Your task to perform on an android device: Clear the cart on ebay. Image 0: 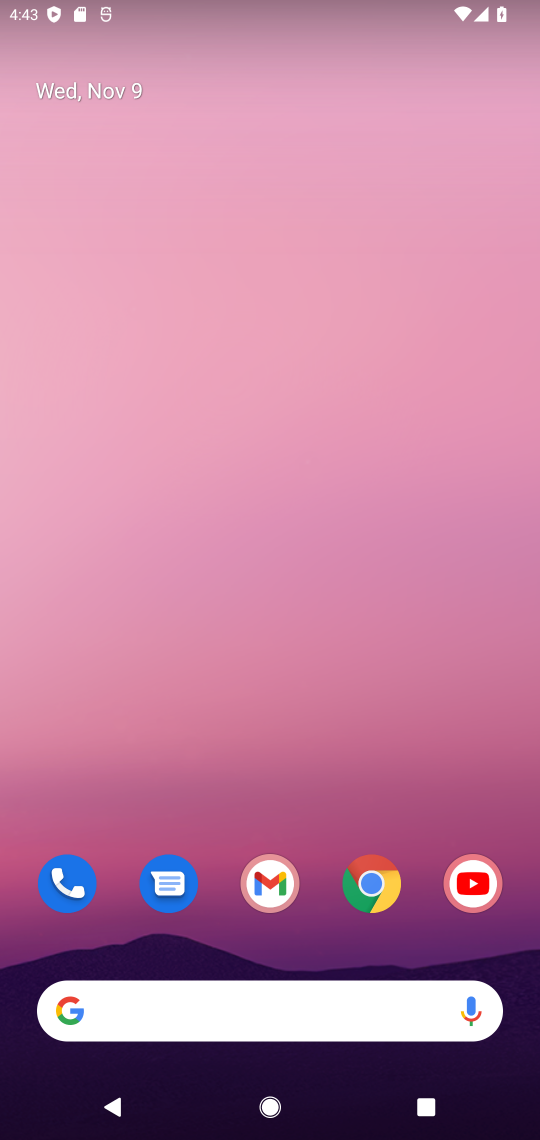
Step 0: click (374, 890)
Your task to perform on an android device: Clear the cart on ebay. Image 1: 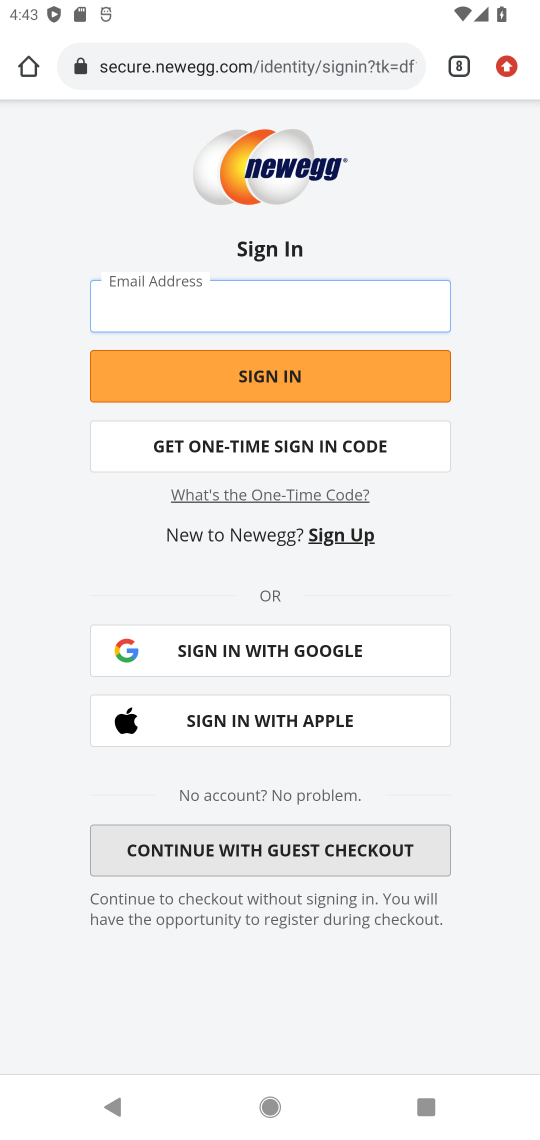
Step 1: click (454, 67)
Your task to perform on an android device: Clear the cart on ebay. Image 2: 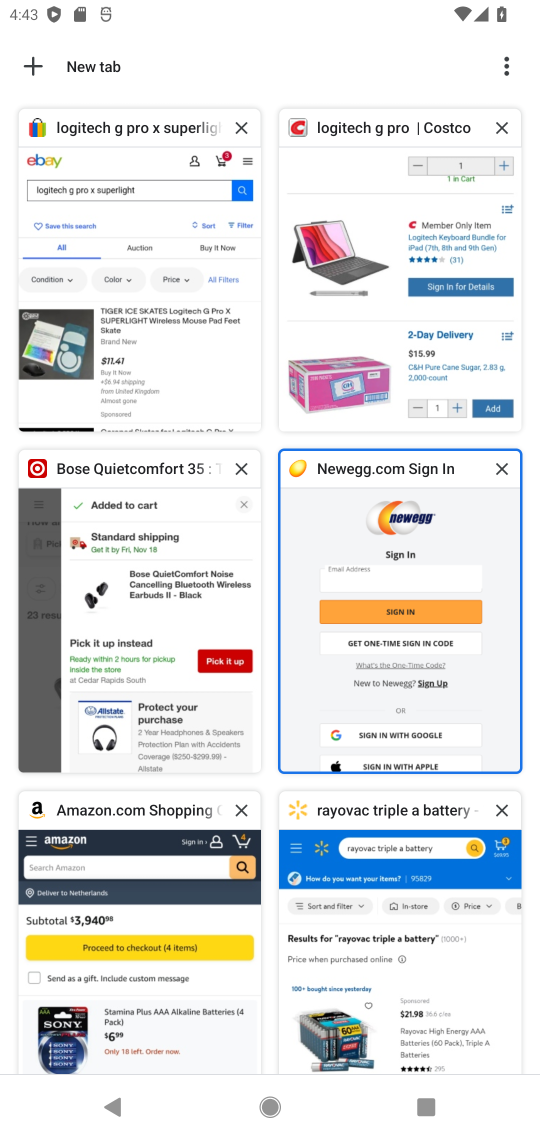
Step 2: click (501, 462)
Your task to perform on an android device: Clear the cart on ebay. Image 3: 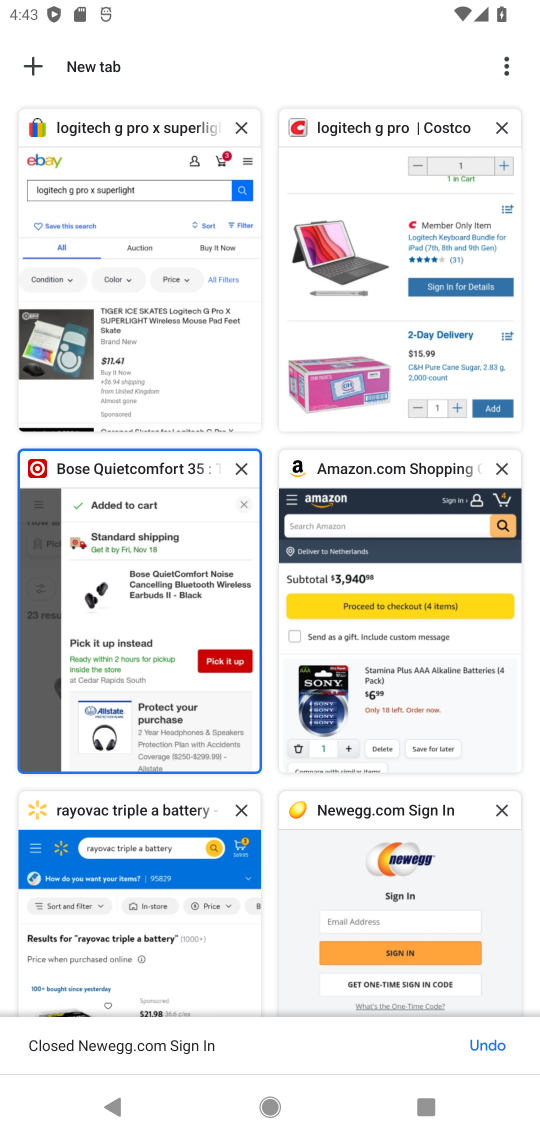
Step 3: click (60, 286)
Your task to perform on an android device: Clear the cart on ebay. Image 4: 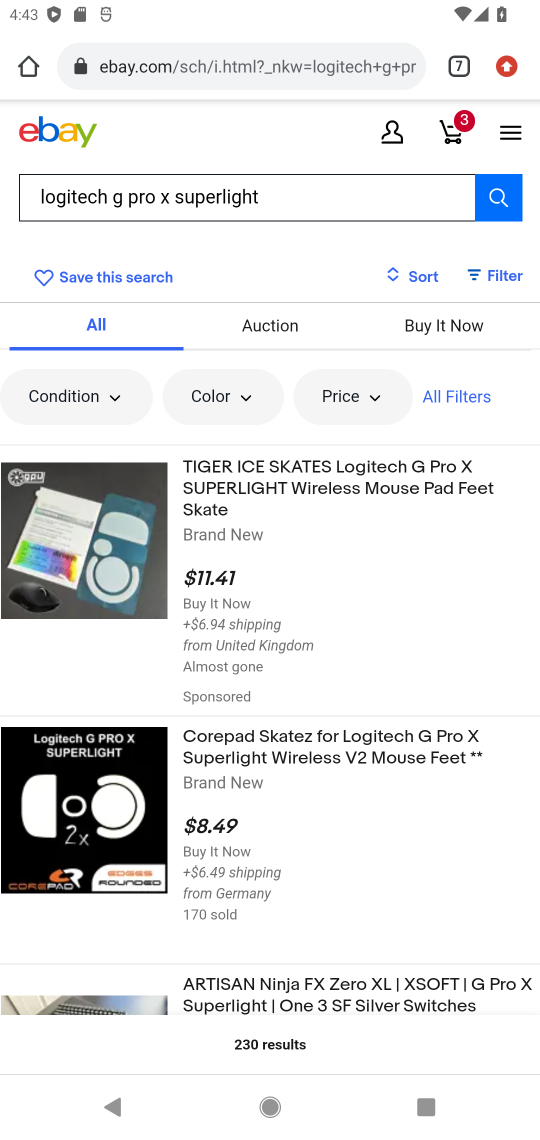
Step 4: click (452, 121)
Your task to perform on an android device: Clear the cart on ebay. Image 5: 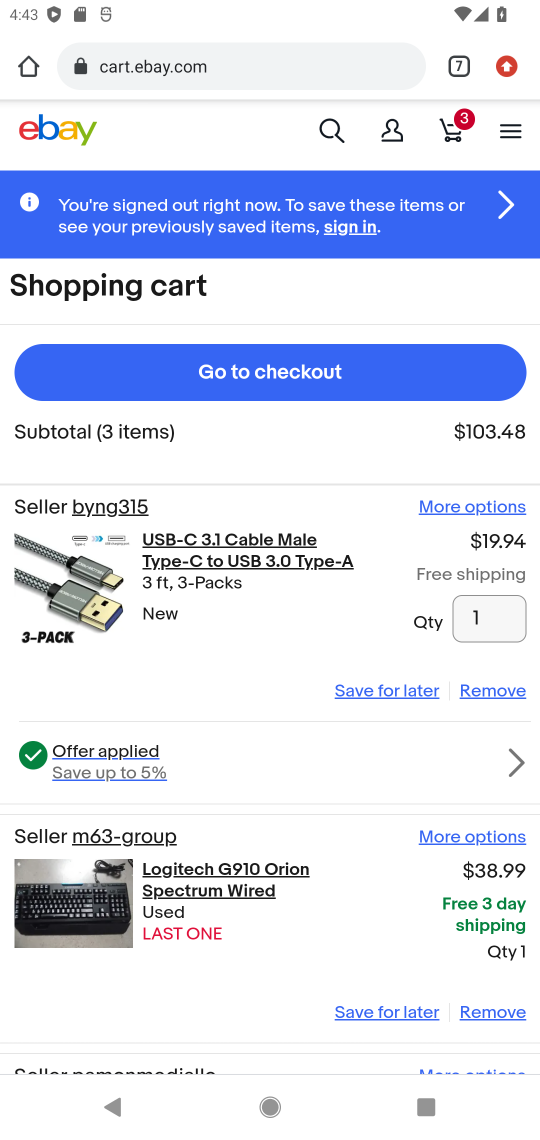
Step 5: click (489, 682)
Your task to perform on an android device: Clear the cart on ebay. Image 6: 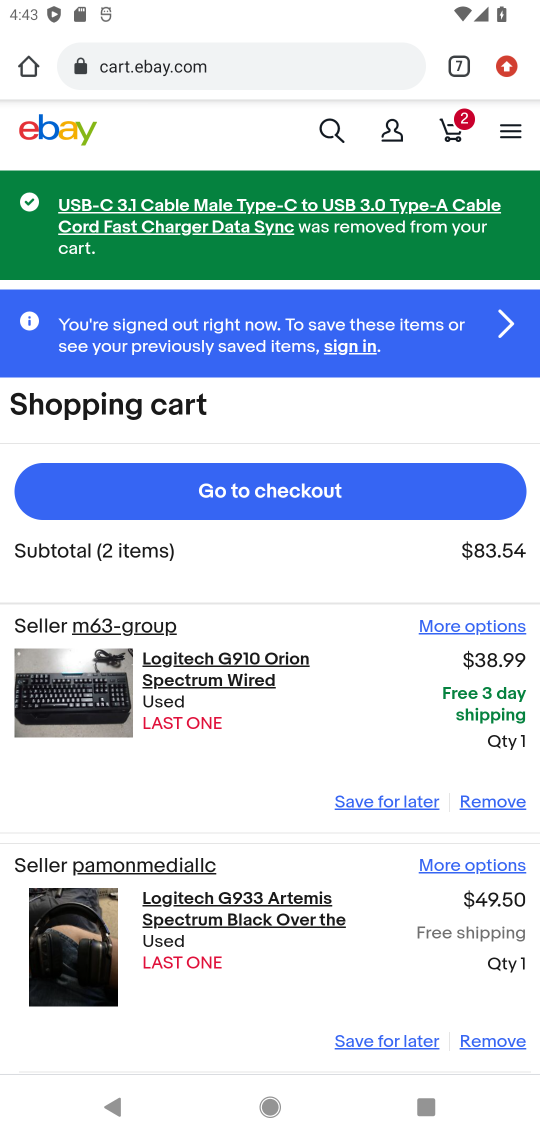
Step 6: click (495, 797)
Your task to perform on an android device: Clear the cart on ebay. Image 7: 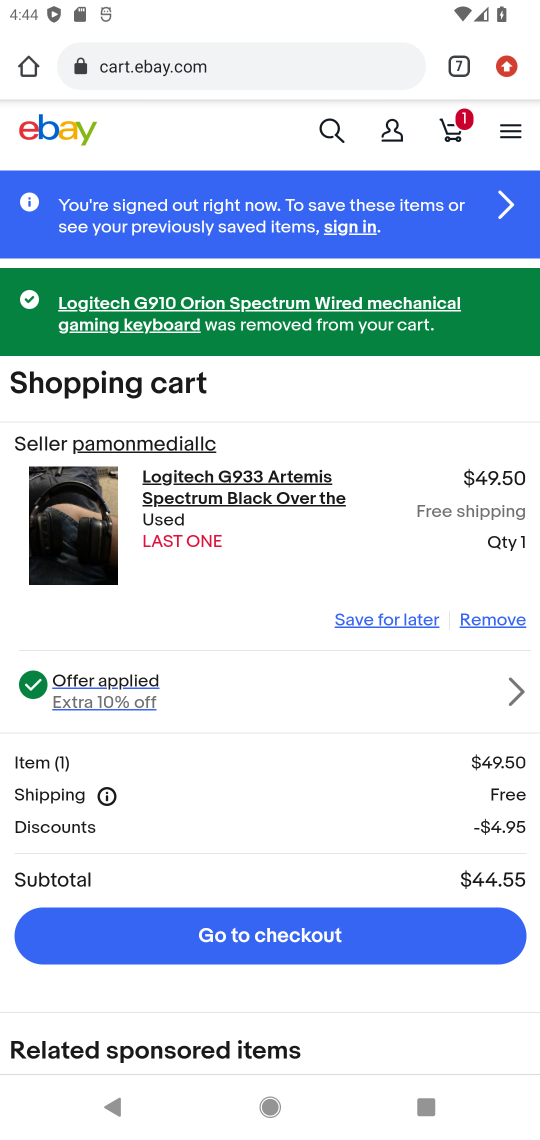
Step 7: click (492, 623)
Your task to perform on an android device: Clear the cart on ebay. Image 8: 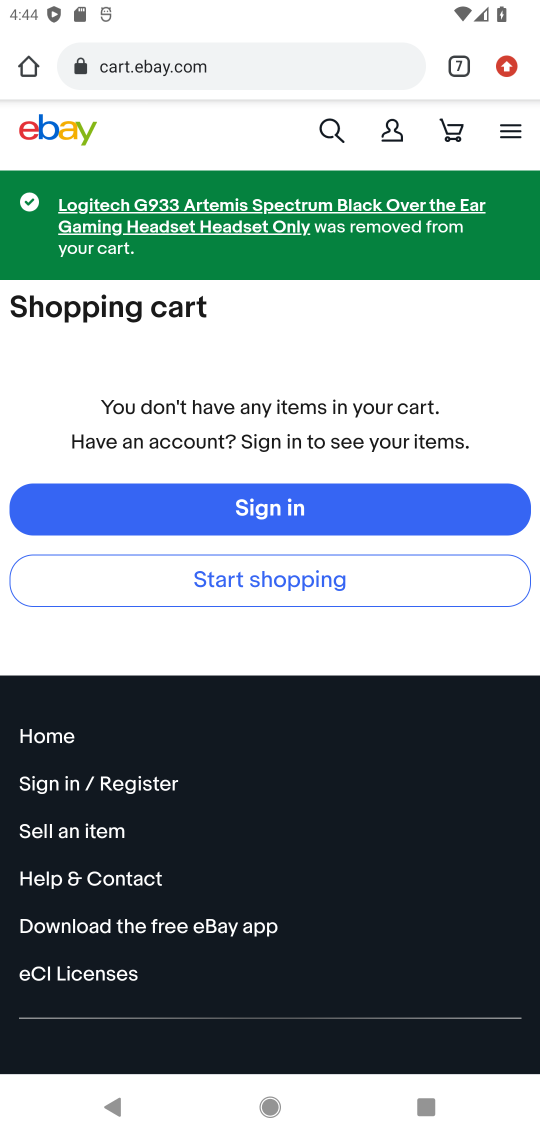
Step 8: task complete